Your task to perform on an android device: Toggle the flashlight Image 0: 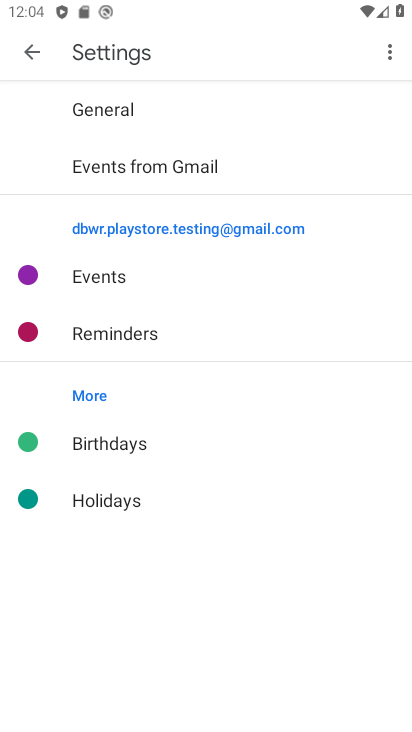
Step 0: press home button
Your task to perform on an android device: Toggle the flashlight Image 1: 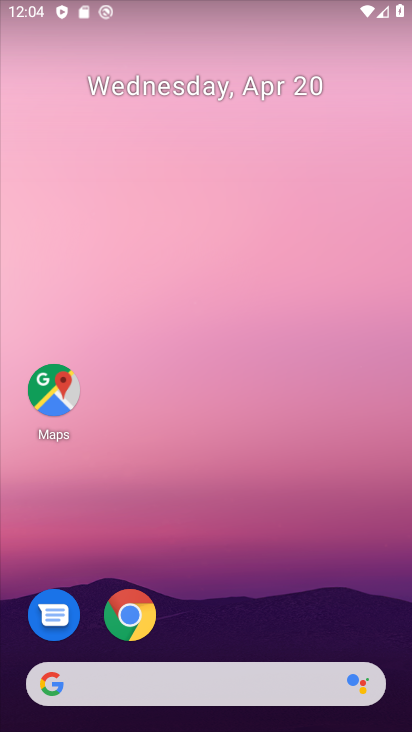
Step 1: drag from (331, 292) to (320, 152)
Your task to perform on an android device: Toggle the flashlight Image 2: 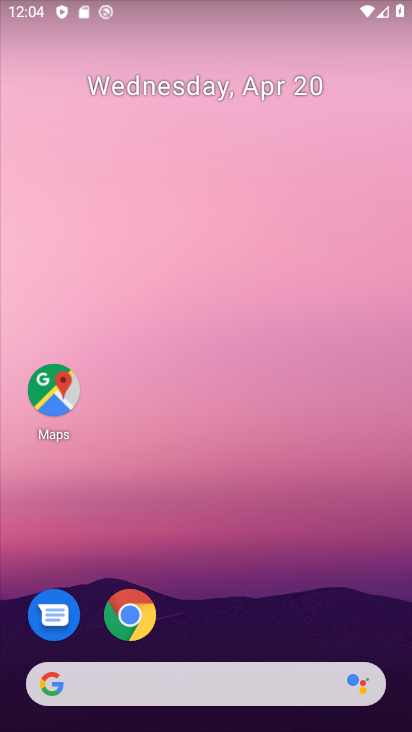
Step 2: drag from (379, 441) to (381, 186)
Your task to perform on an android device: Toggle the flashlight Image 3: 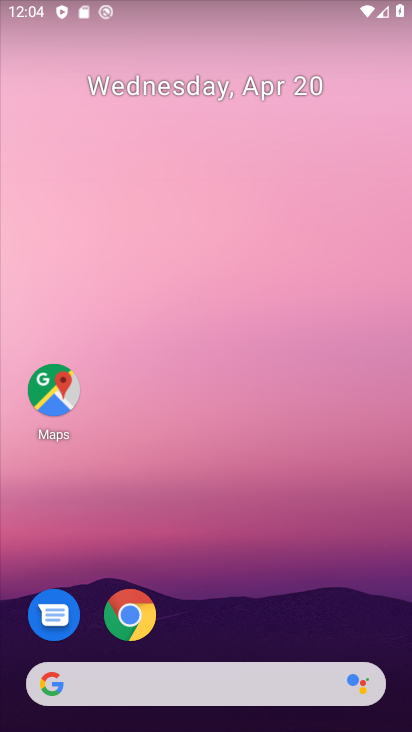
Step 3: drag from (366, 635) to (332, 112)
Your task to perform on an android device: Toggle the flashlight Image 4: 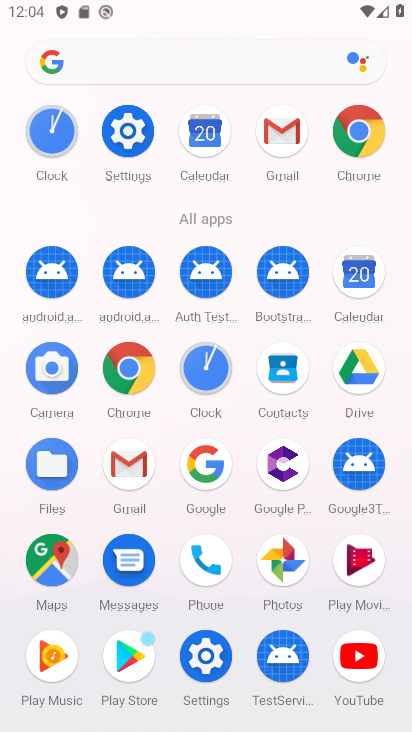
Step 4: click (124, 139)
Your task to perform on an android device: Toggle the flashlight Image 5: 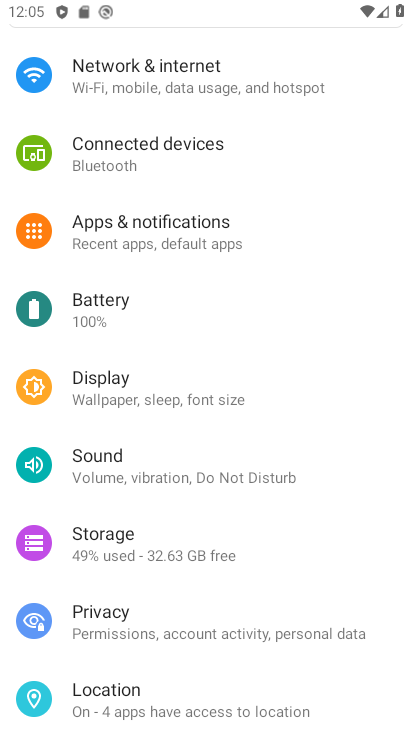
Step 5: click (102, 275)
Your task to perform on an android device: Toggle the flashlight Image 6: 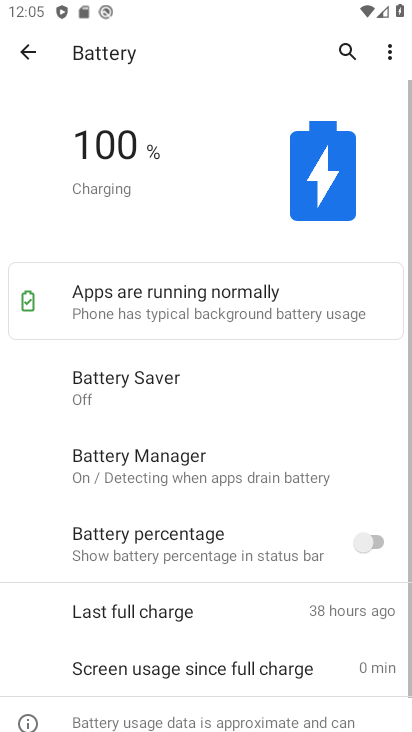
Step 6: task complete